Your task to perform on an android device: Play the last video I watched on Youtube Image 0: 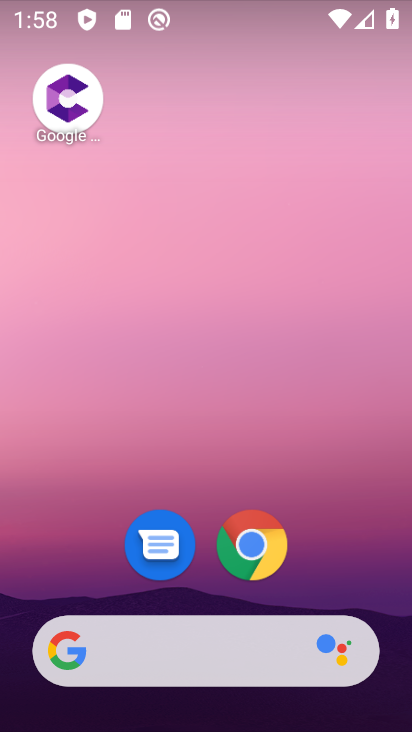
Step 0: drag from (50, 577) to (191, 176)
Your task to perform on an android device: Play the last video I watched on Youtube Image 1: 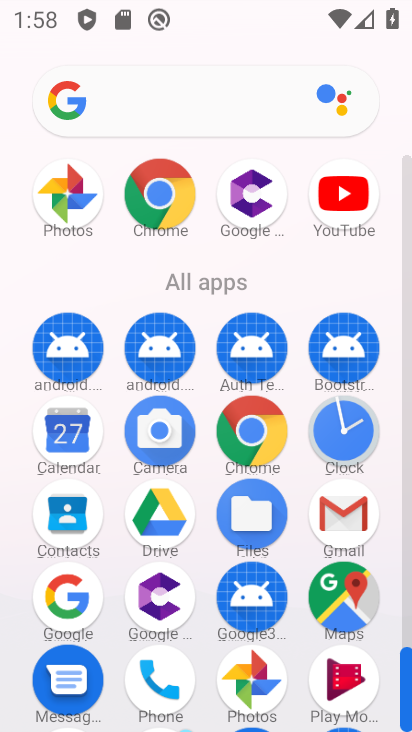
Step 1: click (351, 211)
Your task to perform on an android device: Play the last video I watched on Youtube Image 2: 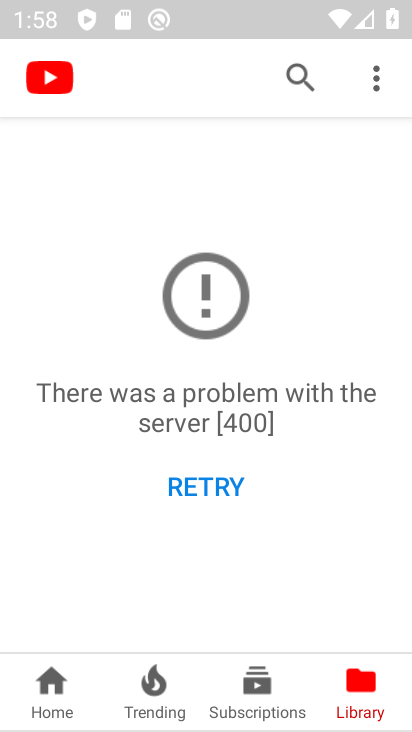
Step 2: task complete